Your task to perform on an android device: Add "bose soundlink mini" to the cart on target.com Image 0: 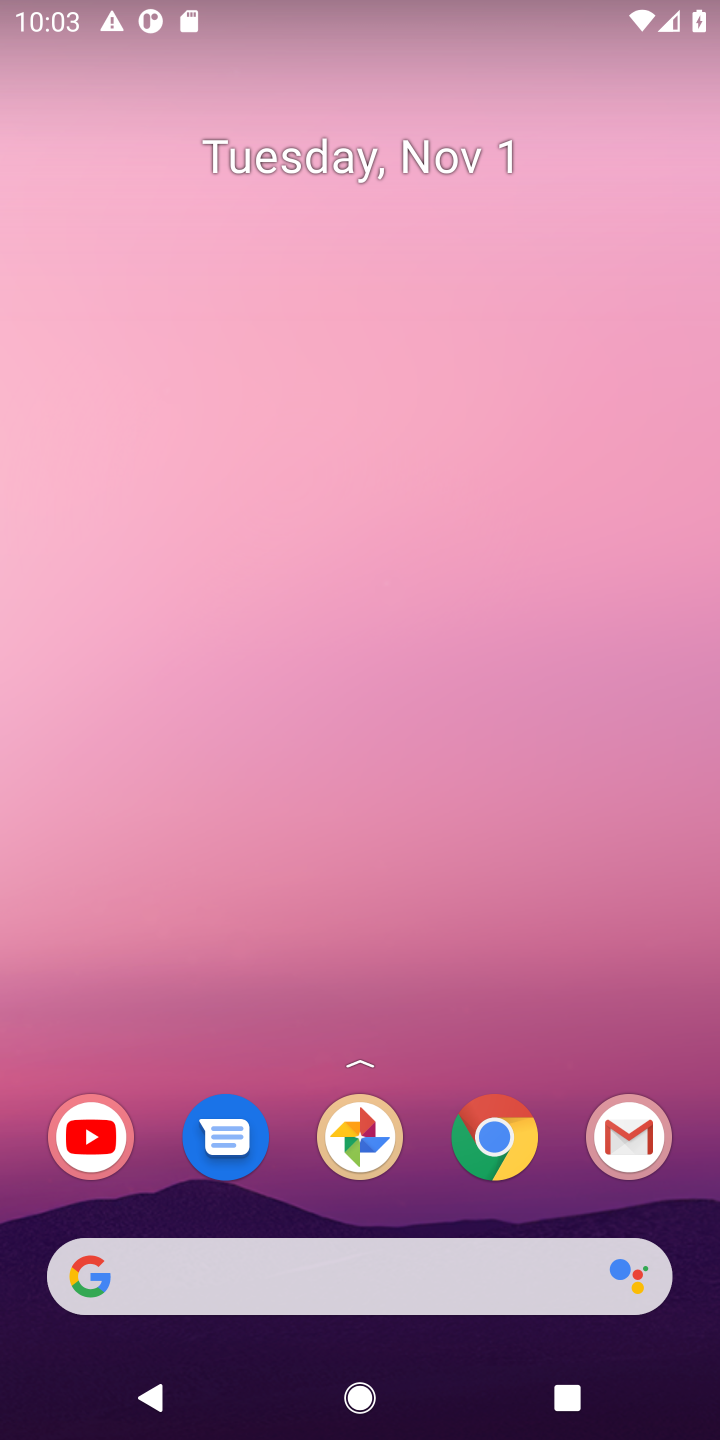
Step 0: click (353, 1277)
Your task to perform on an android device: Add "bose soundlink mini" to the cart on target.com Image 1: 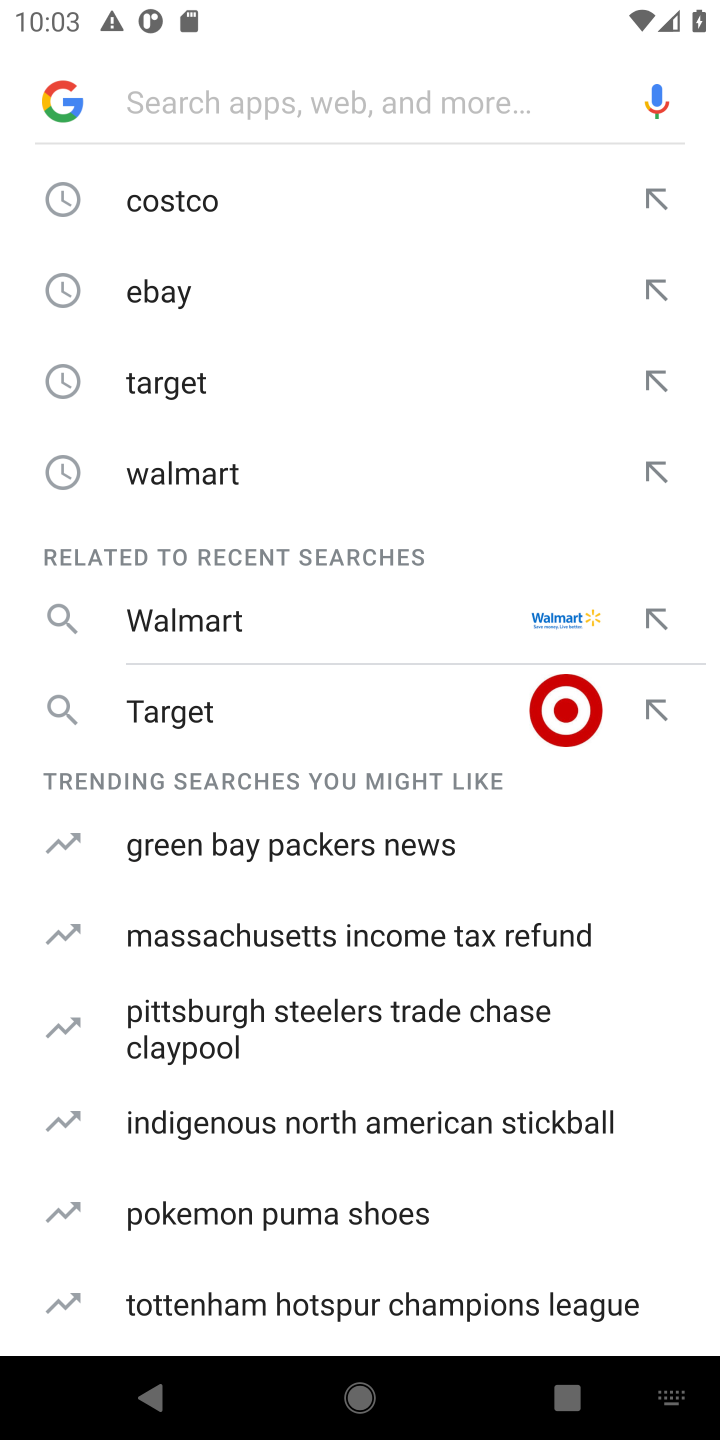
Step 1: click (340, 694)
Your task to perform on an android device: Add "bose soundlink mini" to the cart on target.com Image 2: 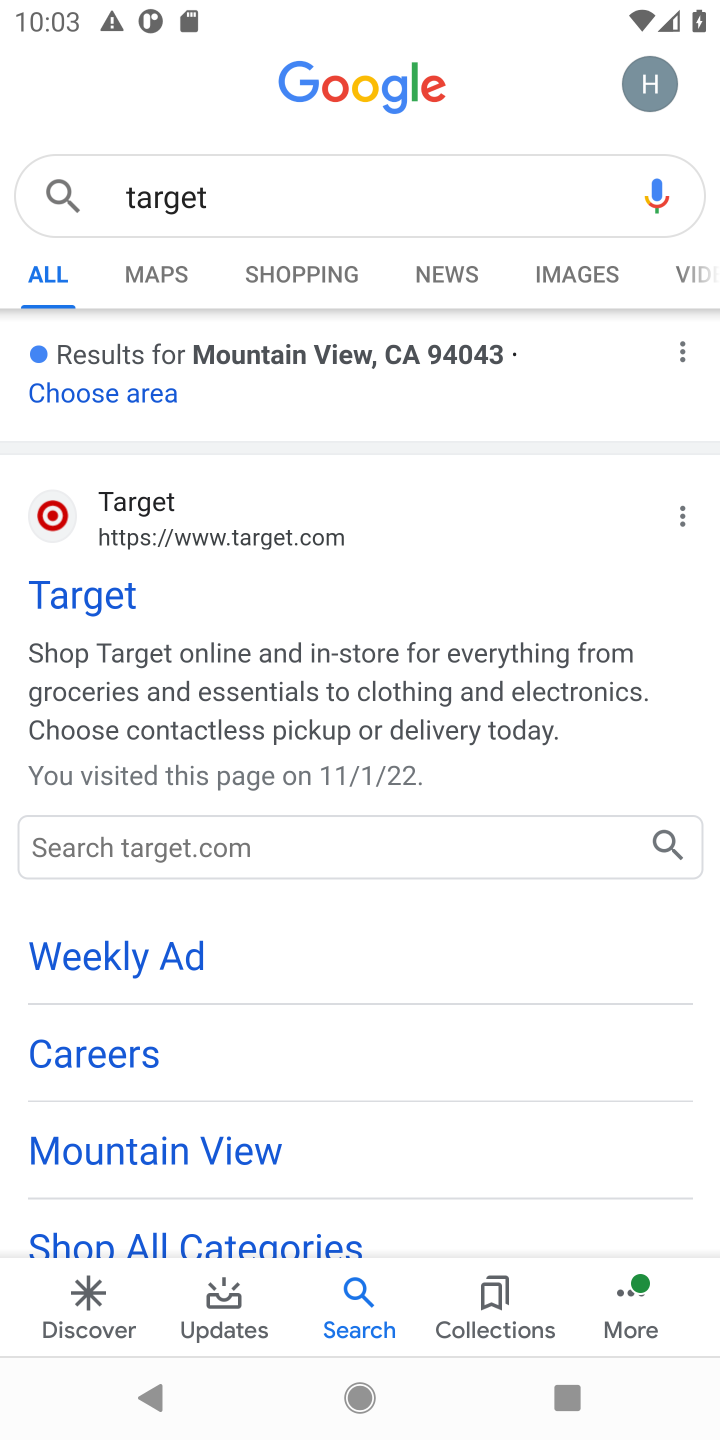
Step 2: click (130, 382)
Your task to perform on an android device: Add "bose soundlink mini" to the cart on target.com Image 3: 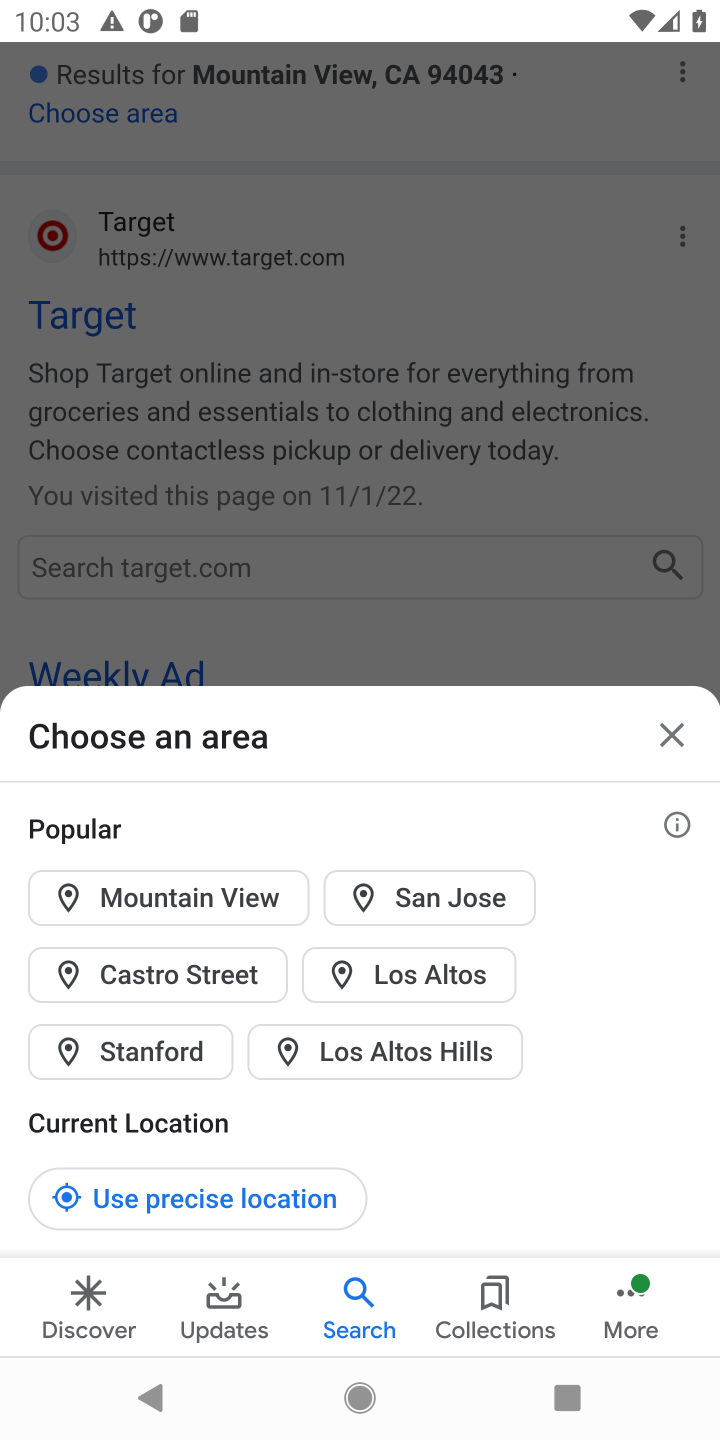
Step 3: click (669, 730)
Your task to perform on an android device: Add "bose soundlink mini" to the cart on target.com Image 4: 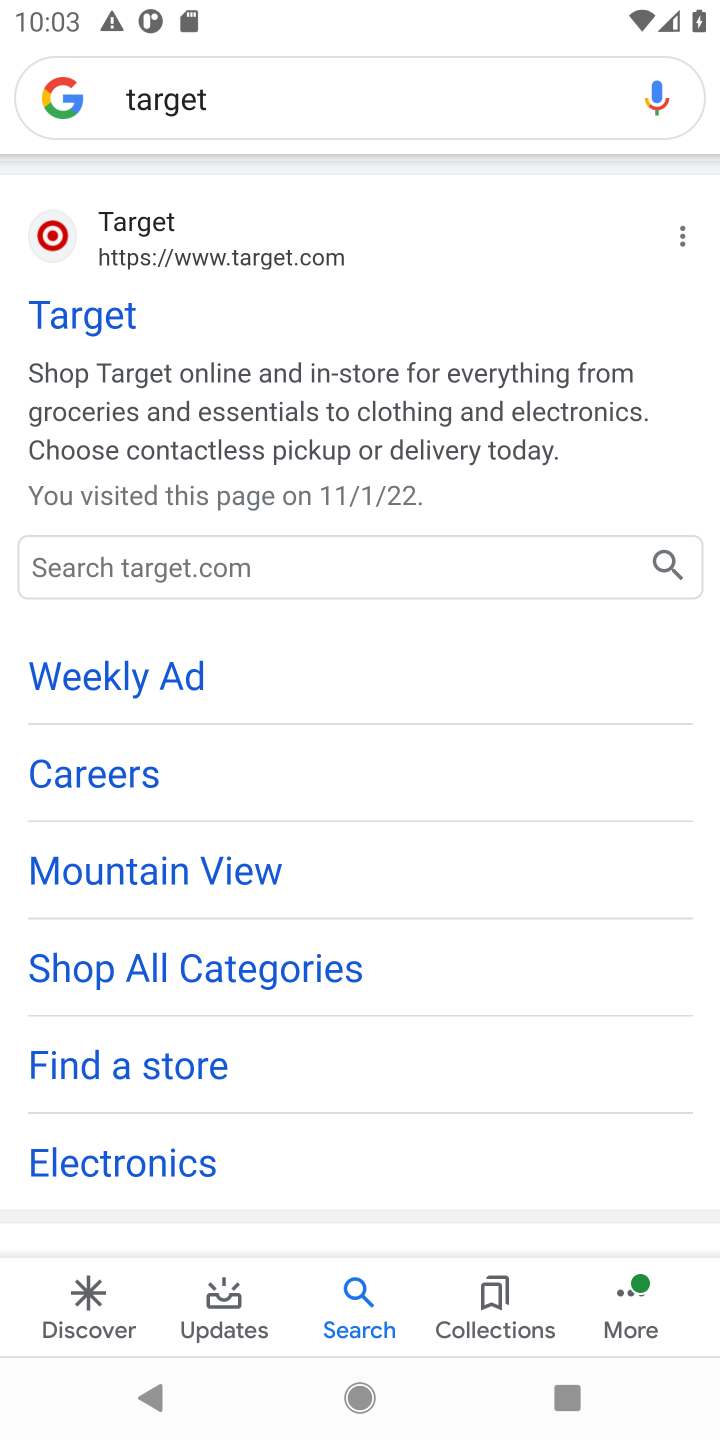
Step 4: click (91, 319)
Your task to perform on an android device: Add "bose soundlink mini" to the cart on target.com Image 5: 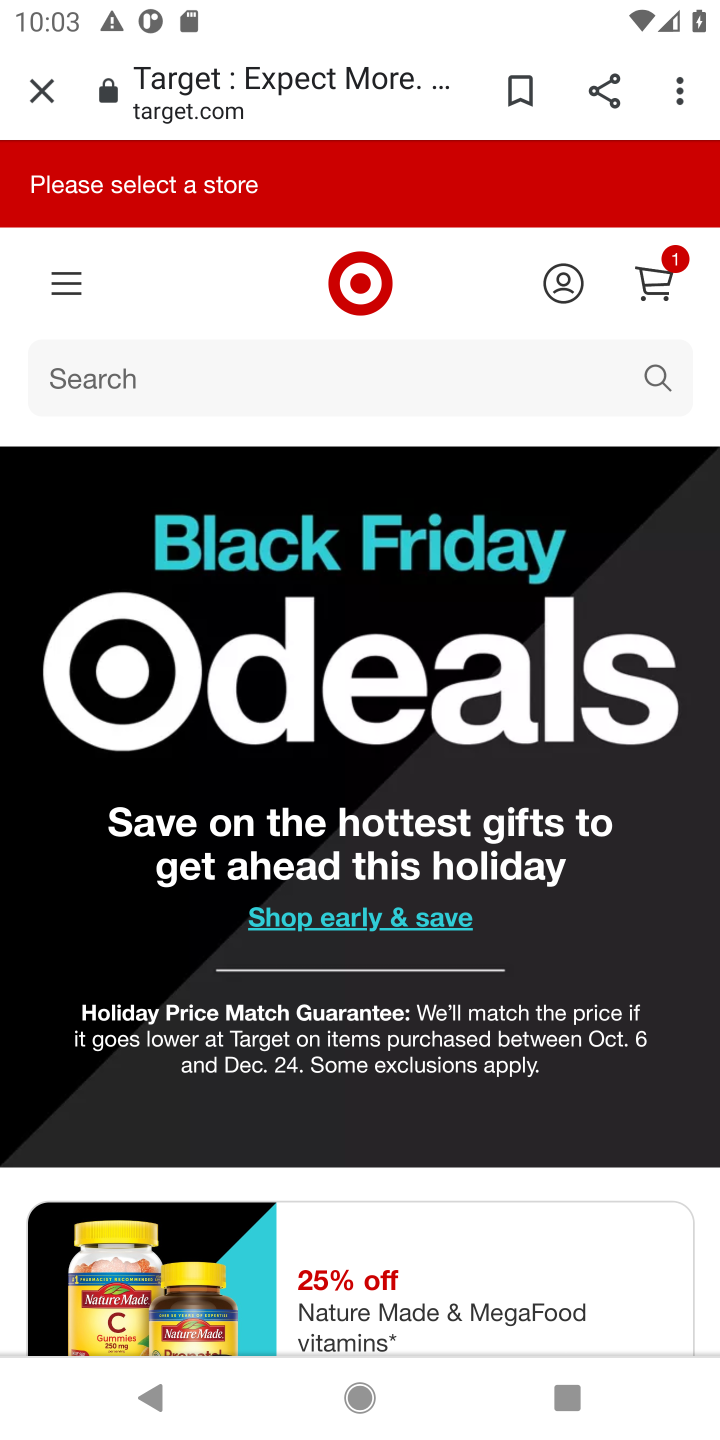
Step 5: click (180, 368)
Your task to perform on an android device: Add "bose soundlink mini" to the cart on target.com Image 6: 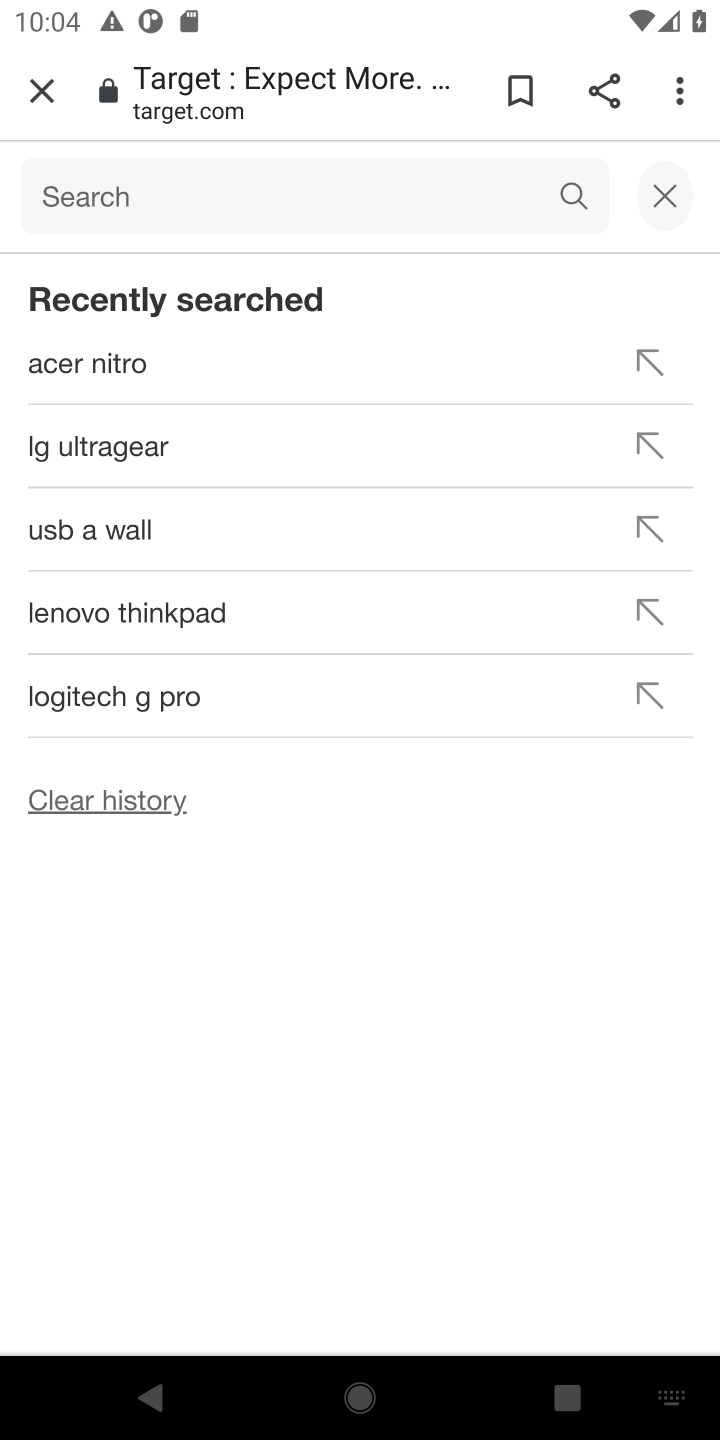
Step 6: type ""bose soundlink mini""
Your task to perform on an android device: Add "bose soundlink mini" to the cart on target.com Image 7: 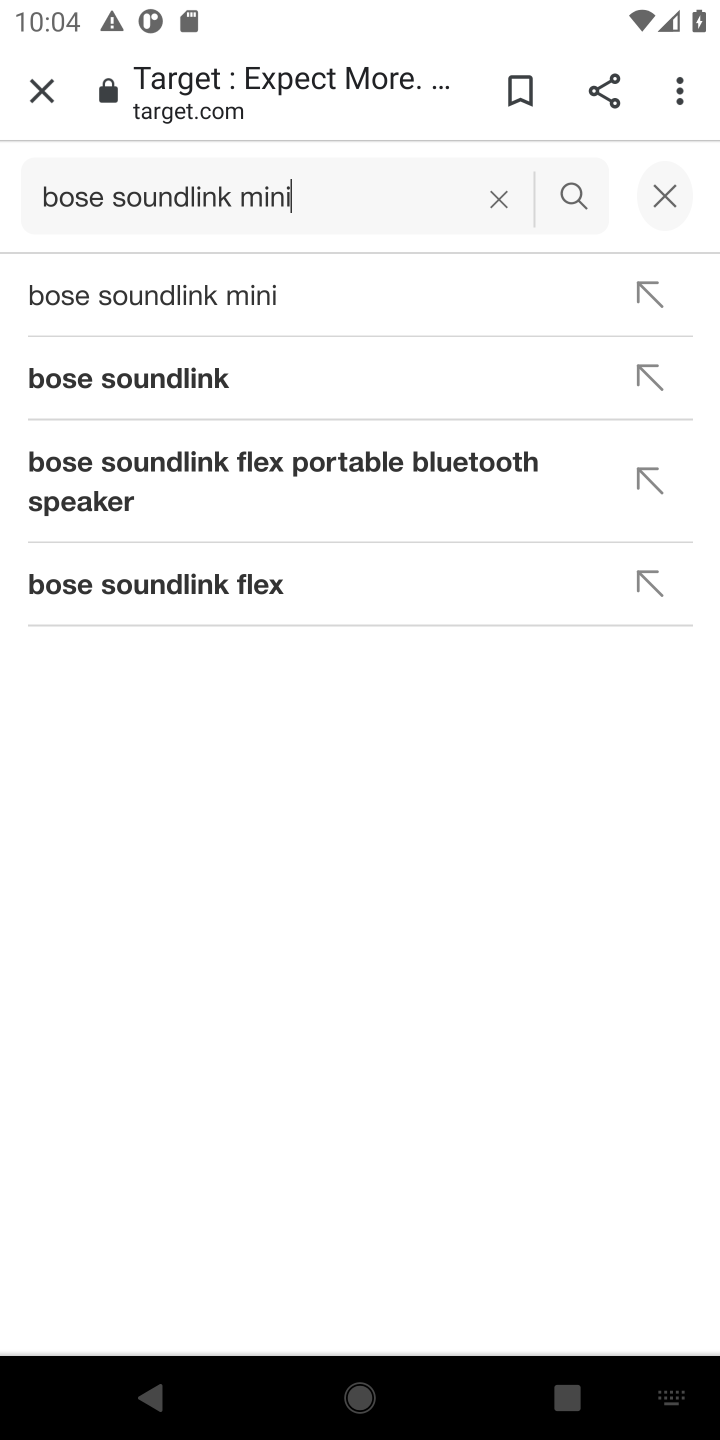
Step 7: click (198, 303)
Your task to perform on an android device: Add "bose soundlink mini" to the cart on target.com Image 8: 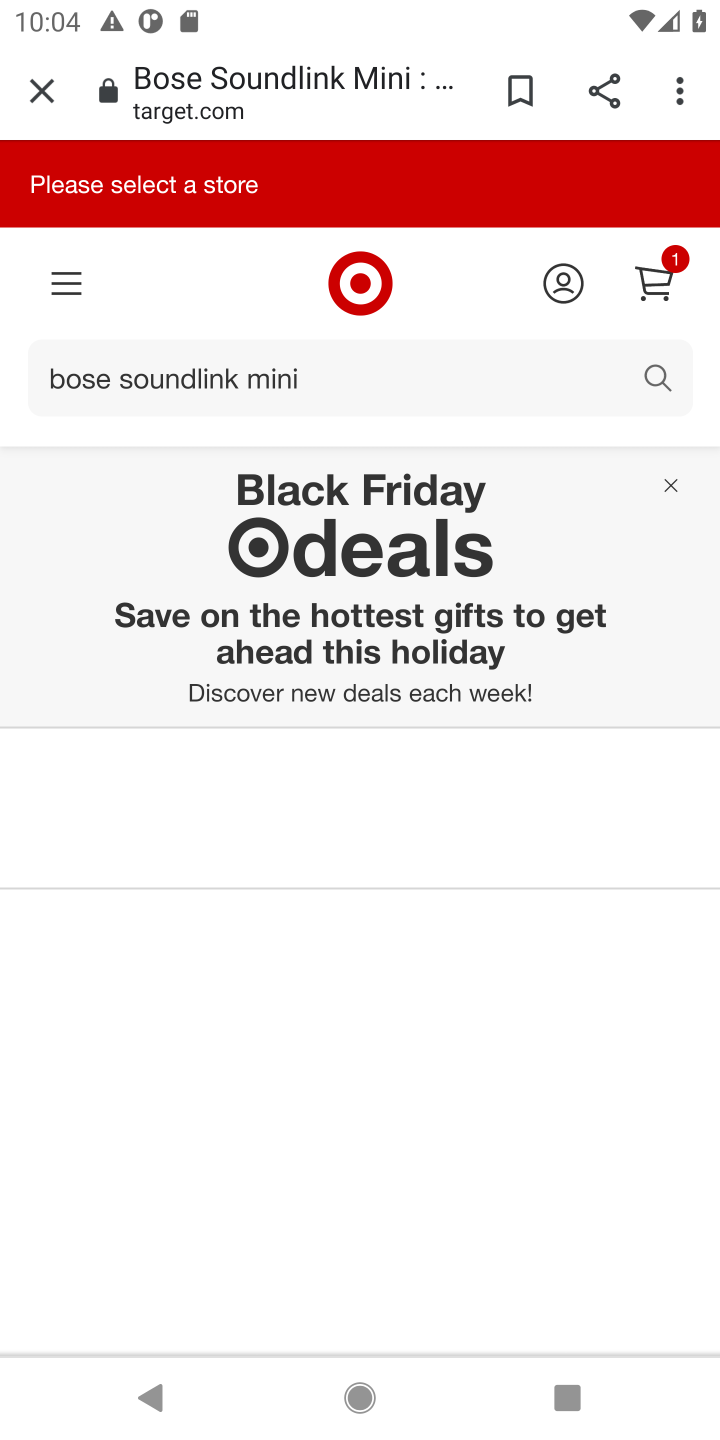
Step 8: click (198, 303)
Your task to perform on an android device: Add "bose soundlink mini" to the cart on target.com Image 9: 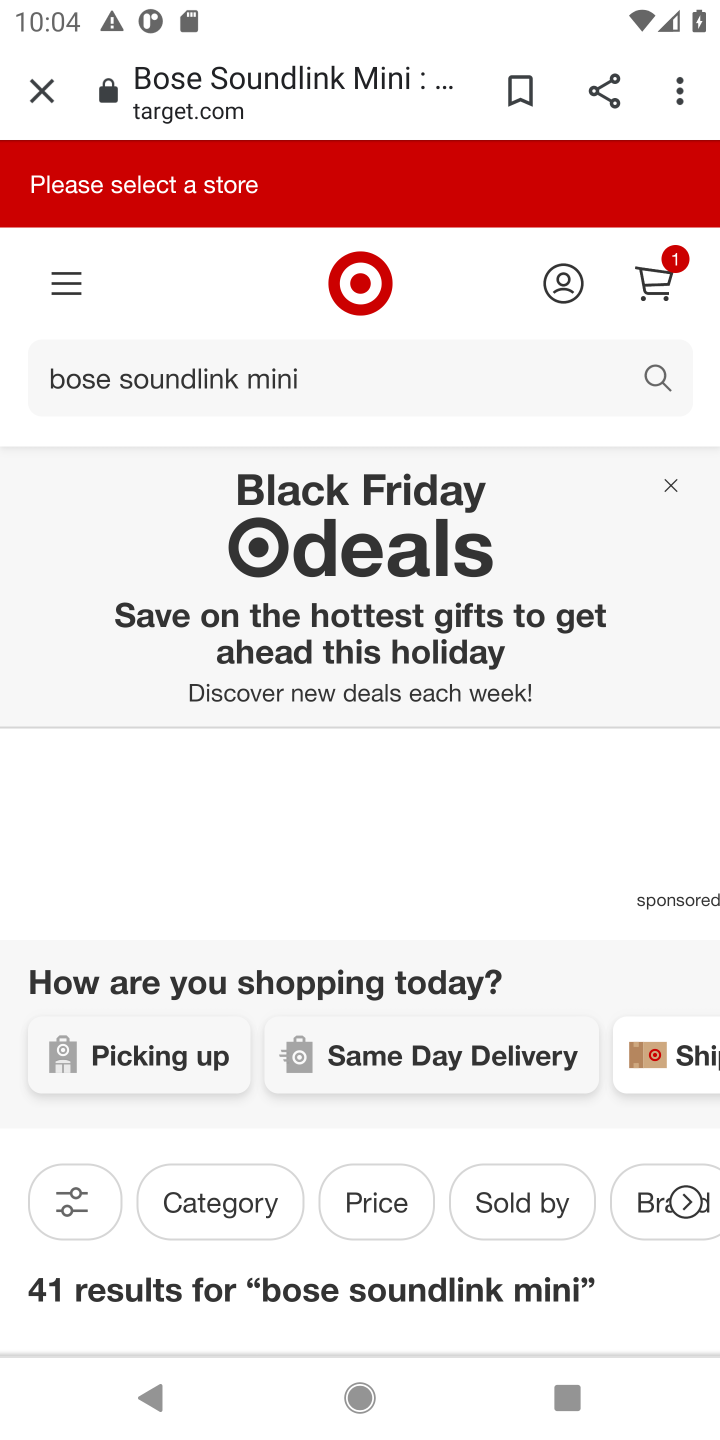
Step 9: click (198, 303)
Your task to perform on an android device: Add "bose soundlink mini" to the cart on target.com Image 10: 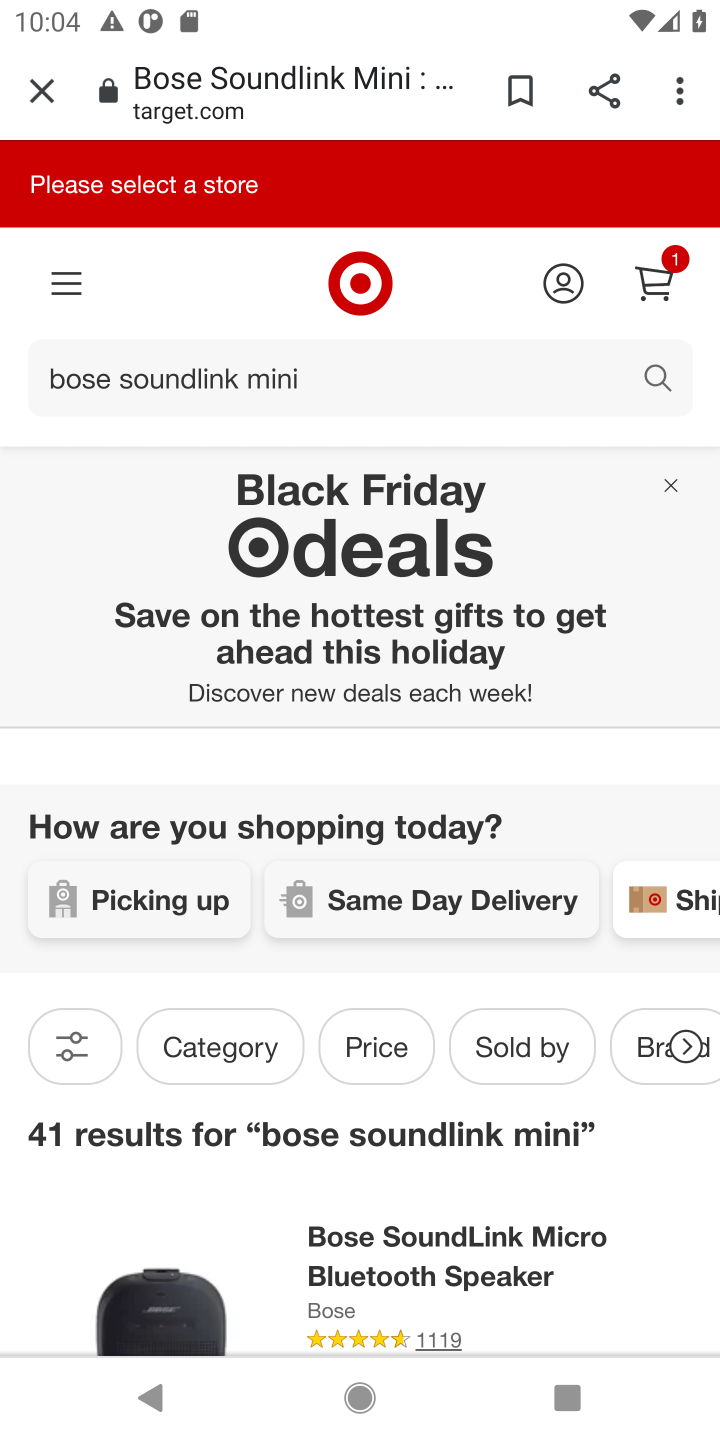
Step 10: click (394, 1236)
Your task to perform on an android device: Add "bose soundlink mini" to the cart on target.com Image 11: 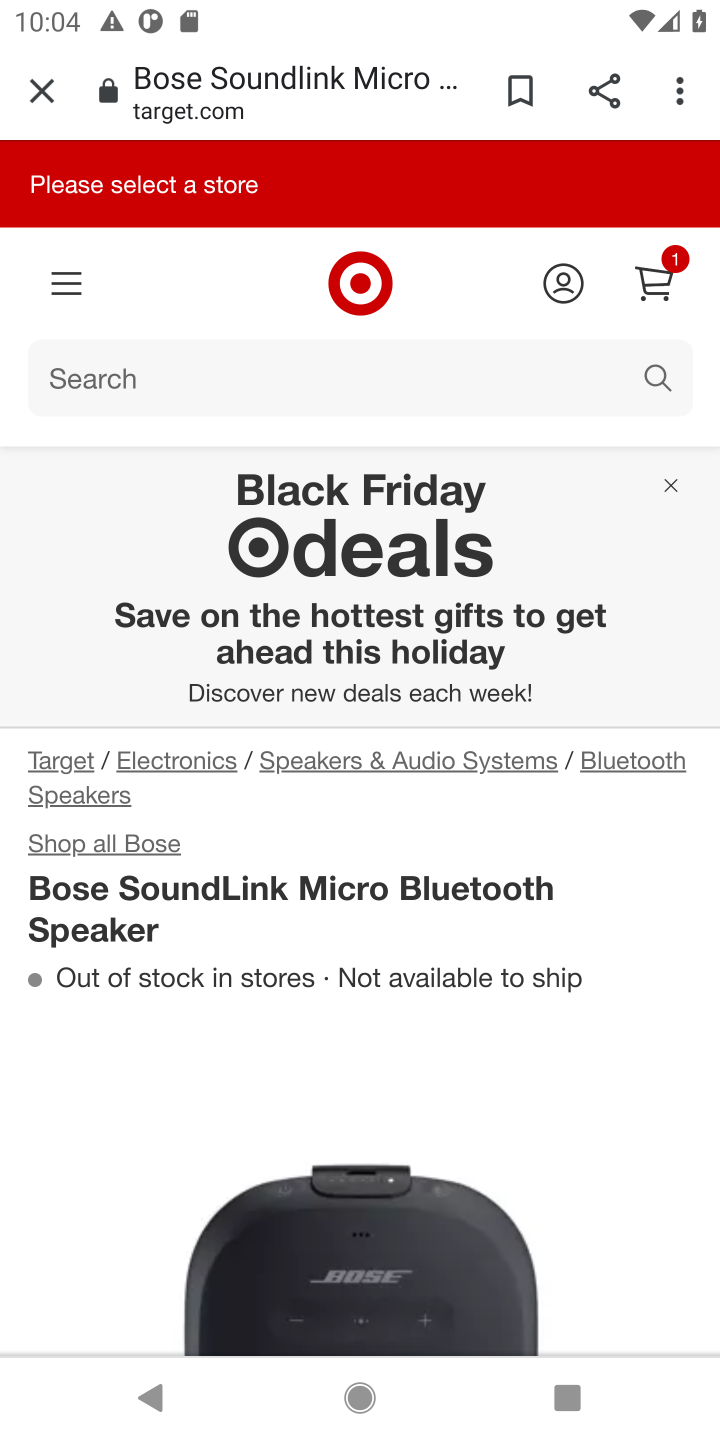
Step 11: drag from (437, 869) to (432, 364)
Your task to perform on an android device: Add "bose soundlink mini" to the cart on target.com Image 12: 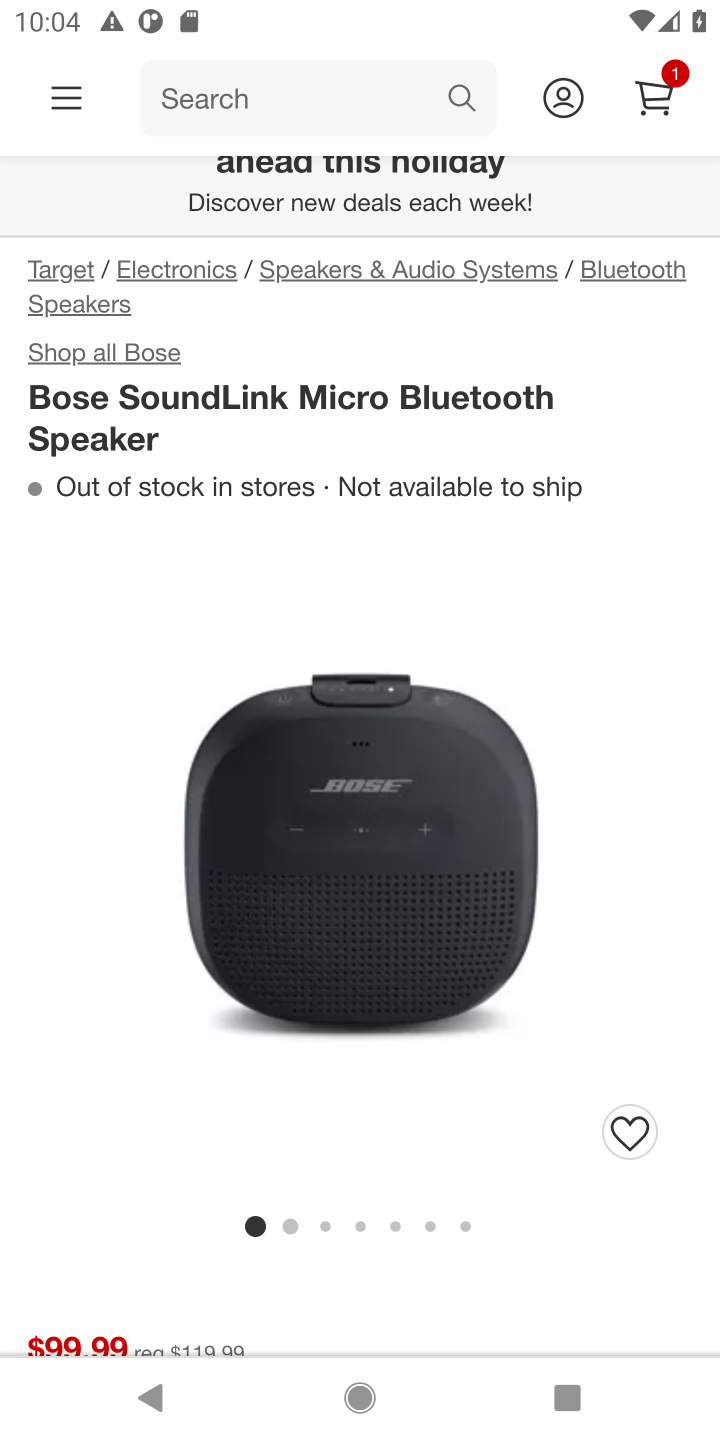
Step 12: click (510, 603)
Your task to perform on an android device: Add "bose soundlink mini" to the cart on target.com Image 13: 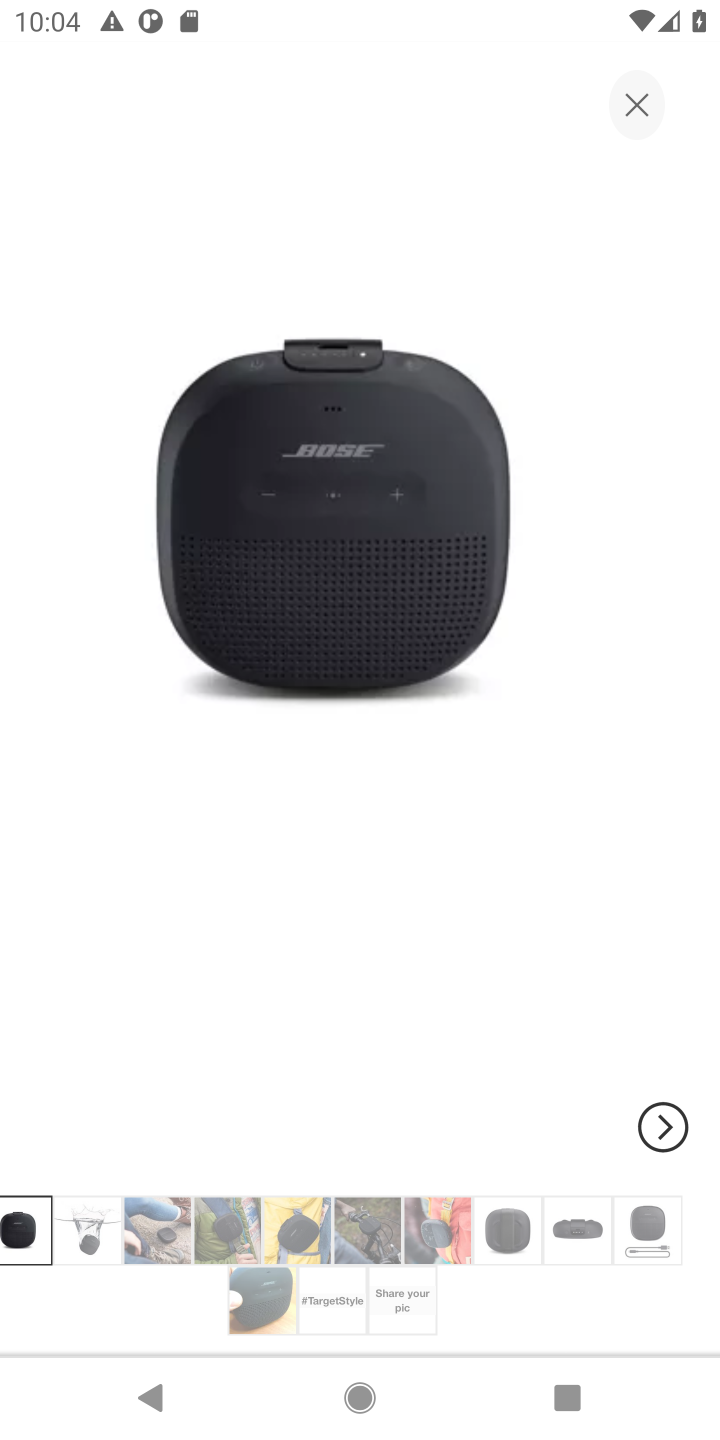
Step 13: click (623, 101)
Your task to perform on an android device: Add "bose soundlink mini" to the cart on target.com Image 14: 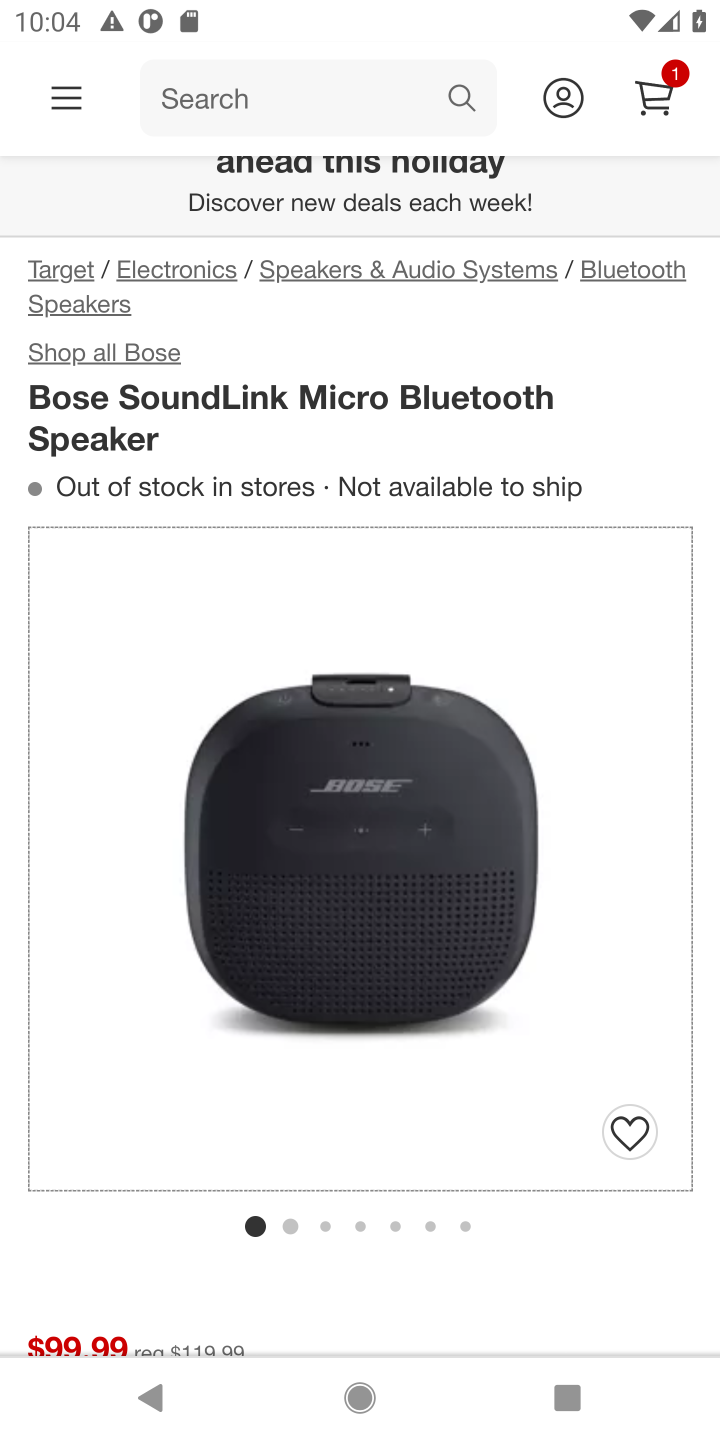
Step 14: drag from (394, 1192) to (408, 850)
Your task to perform on an android device: Add "bose soundlink mini" to the cart on target.com Image 15: 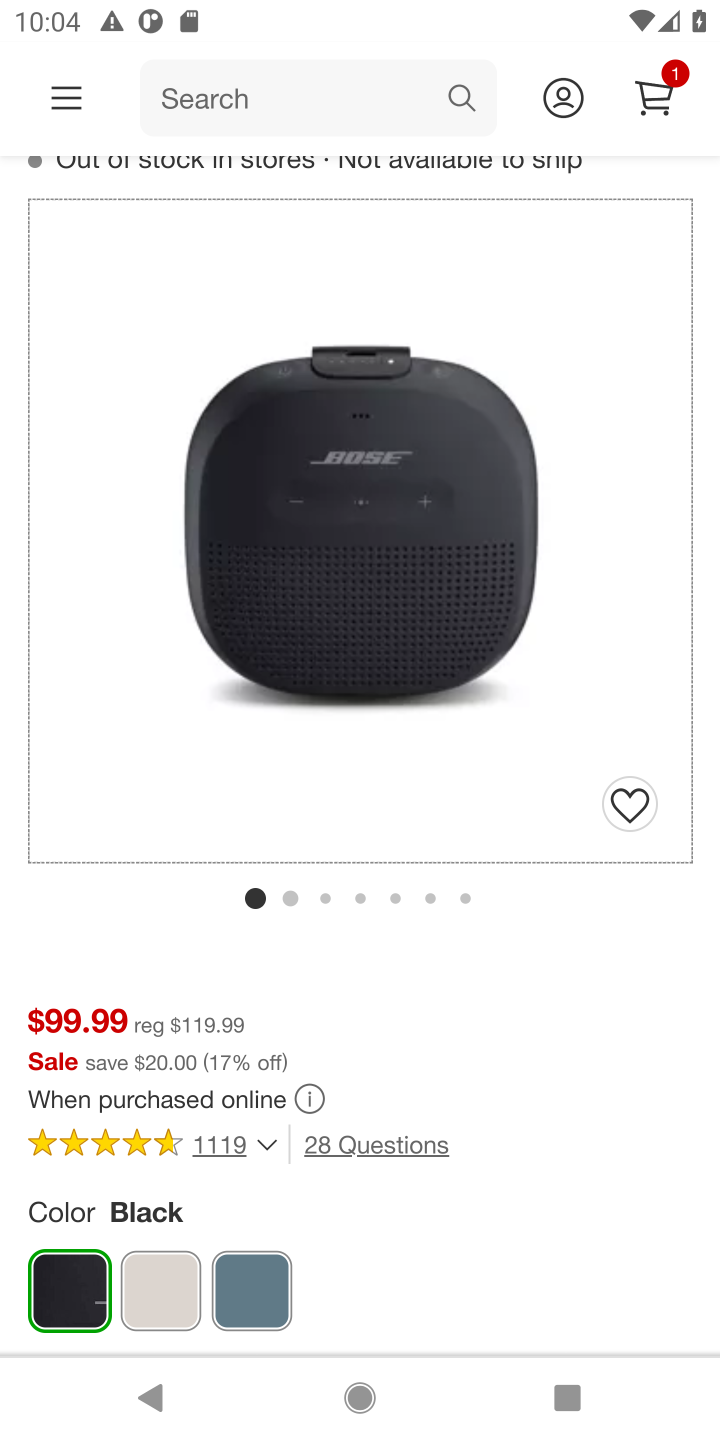
Step 15: drag from (390, 1139) to (448, 659)
Your task to perform on an android device: Add "bose soundlink mini" to the cart on target.com Image 16: 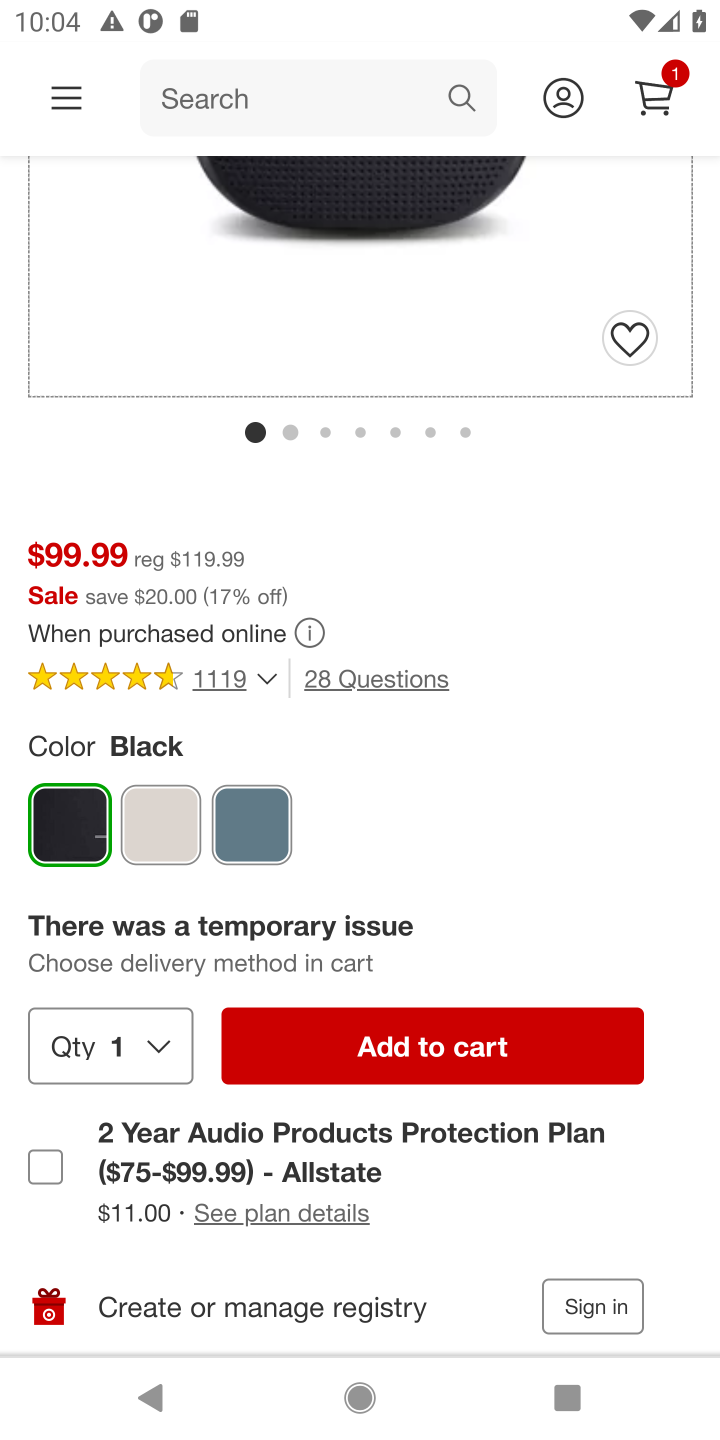
Step 16: click (401, 1025)
Your task to perform on an android device: Add "bose soundlink mini" to the cart on target.com Image 17: 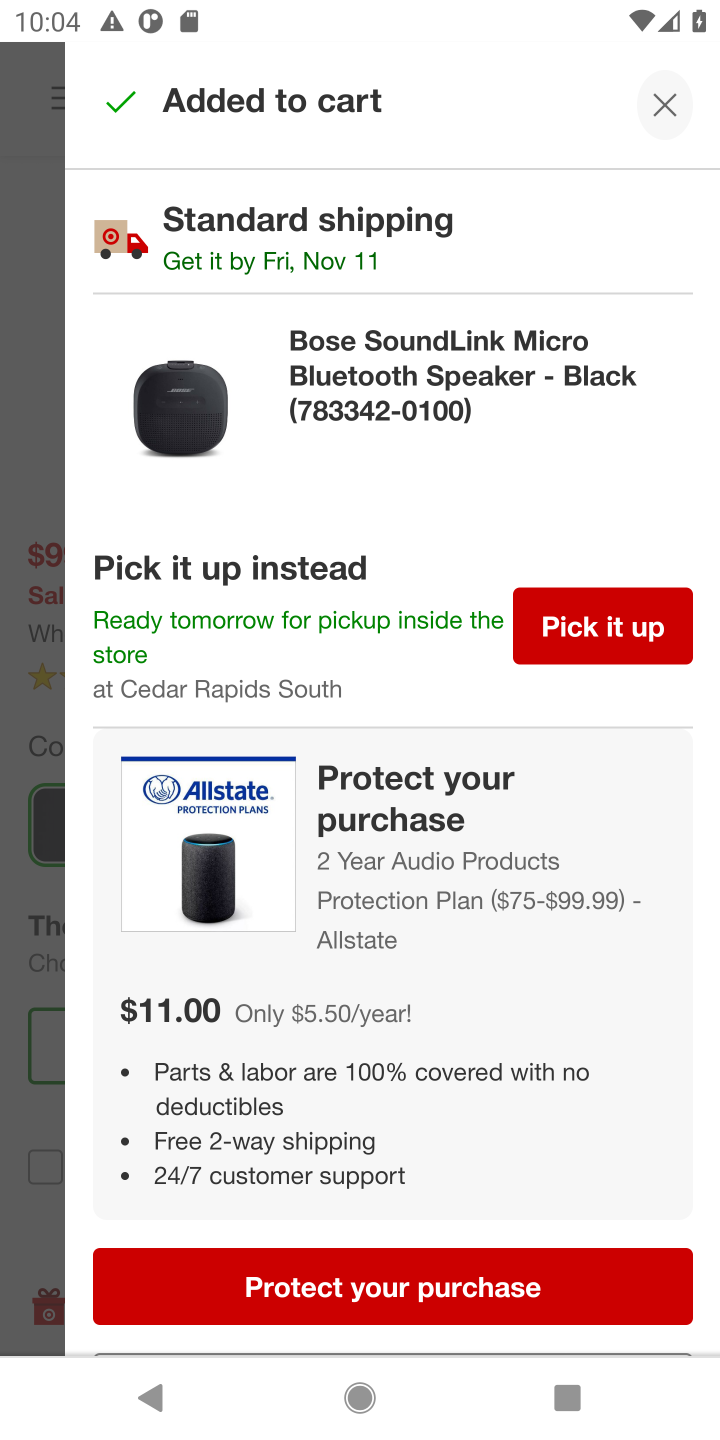
Step 17: click (674, 109)
Your task to perform on an android device: Add "bose soundlink mini" to the cart on target.com Image 18: 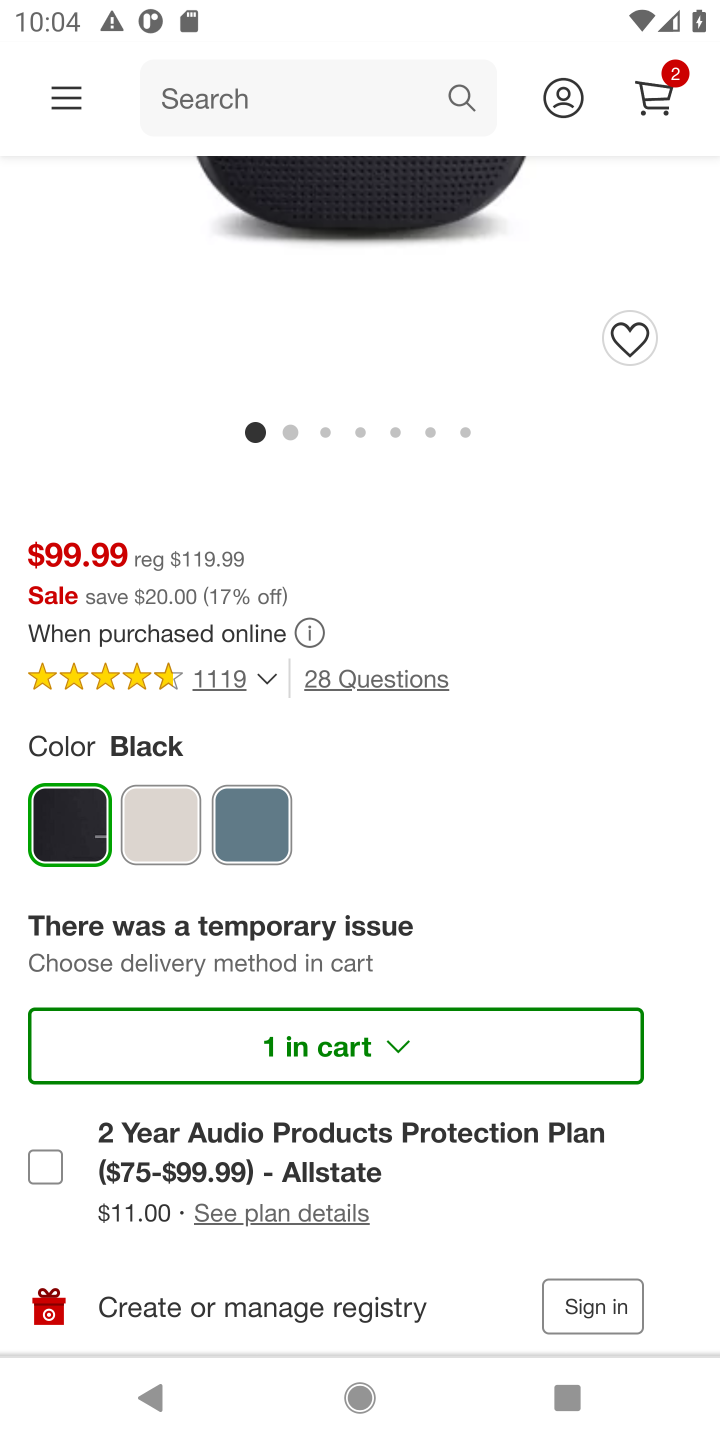
Step 18: click (656, 109)
Your task to perform on an android device: Add "bose soundlink mini" to the cart on target.com Image 19: 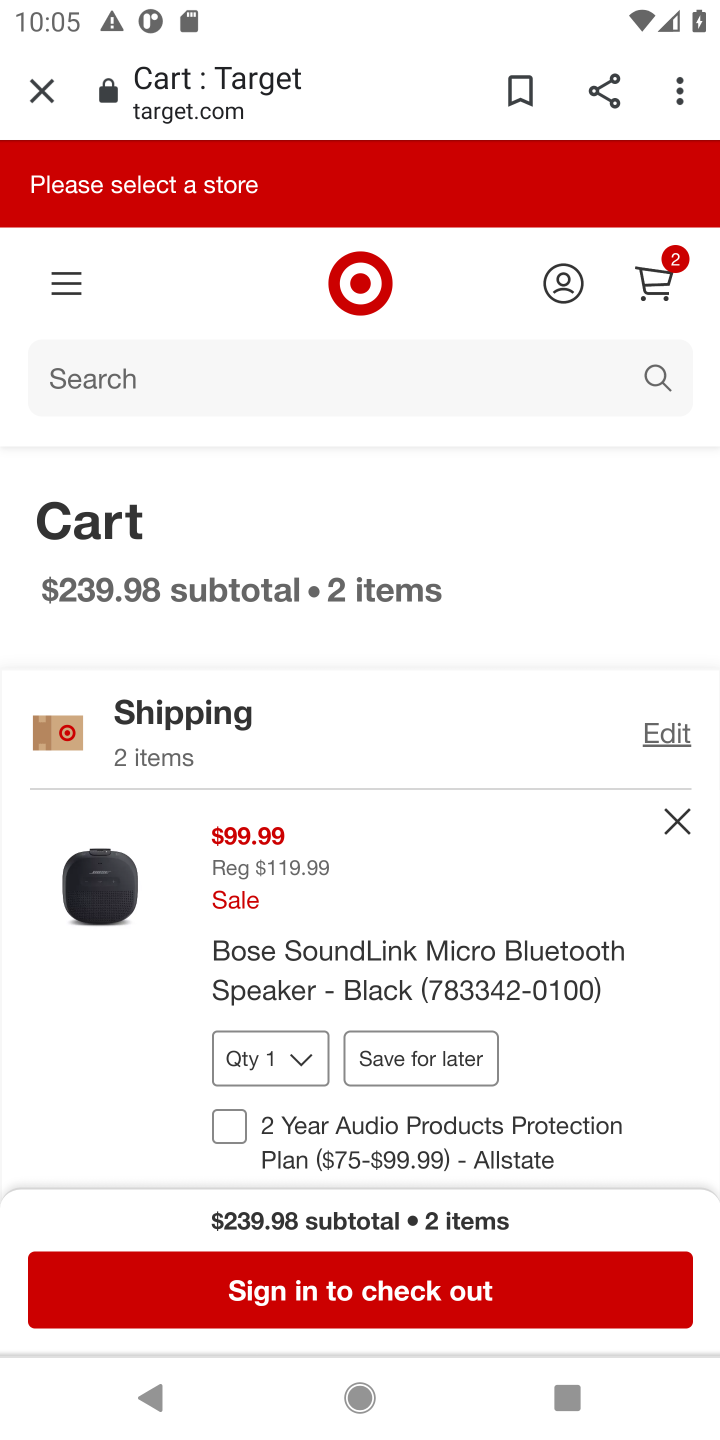
Step 19: click (365, 1298)
Your task to perform on an android device: Add "bose soundlink mini" to the cart on target.com Image 20: 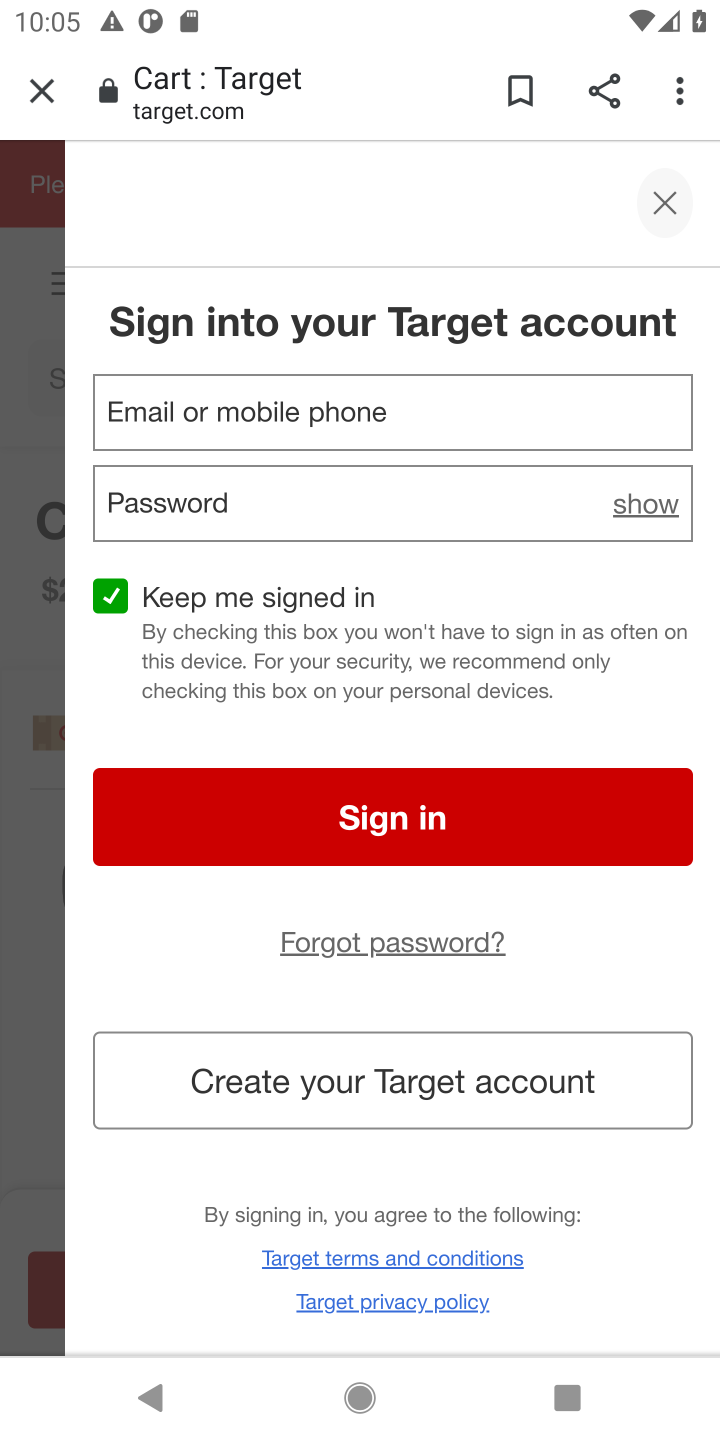
Step 20: task complete